Your task to perform on an android device: Show me popular games on the Play Store Image 0: 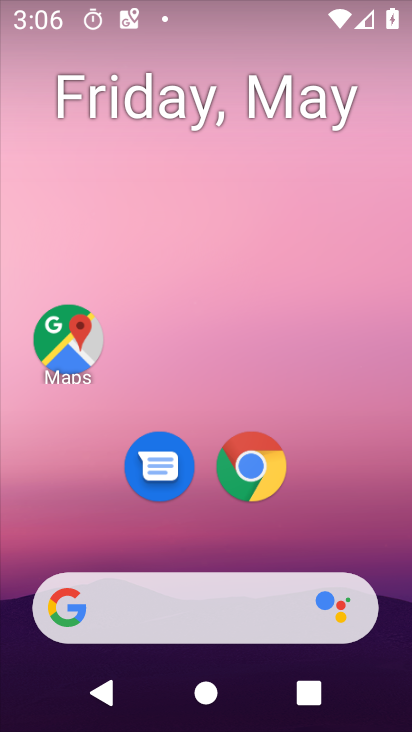
Step 0: drag from (209, 459) to (253, 176)
Your task to perform on an android device: Show me popular games on the Play Store Image 1: 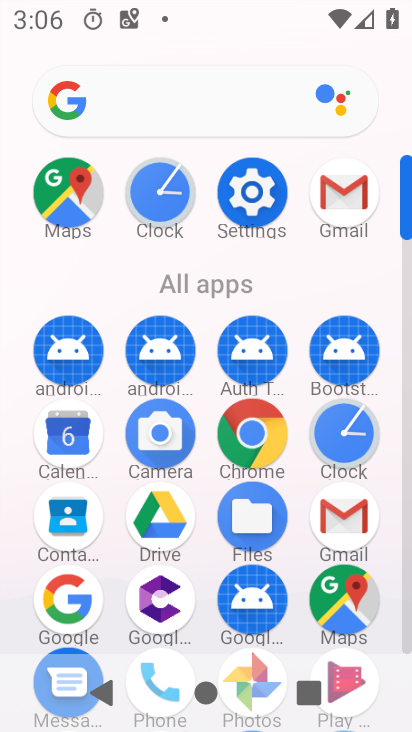
Step 1: drag from (296, 552) to (316, 222)
Your task to perform on an android device: Show me popular games on the Play Store Image 2: 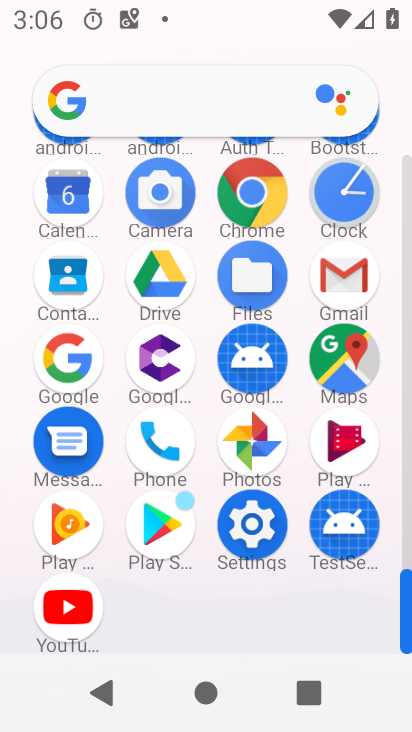
Step 2: click (160, 539)
Your task to perform on an android device: Show me popular games on the Play Store Image 3: 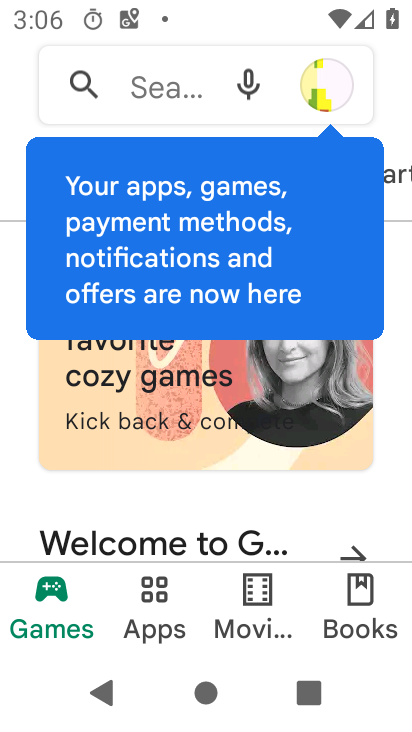
Step 3: click (392, 68)
Your task to perform on an android device: Show me popular games on the Play Store Image 4: 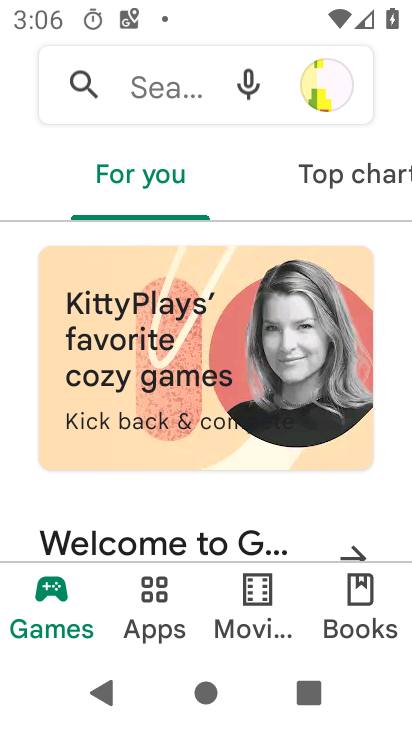
Step 4: click (339, 169)
Your task to perform on an android device: Show me popular games on the Play Store Image 5: 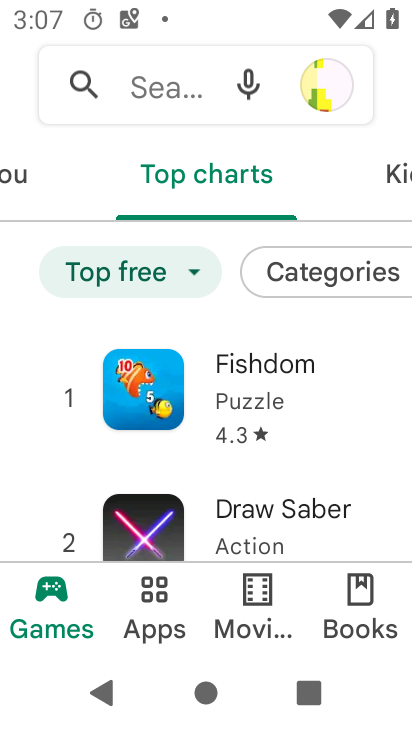
Step 5: task complete